Your task to perform on an android device: show emergency info Image 0: 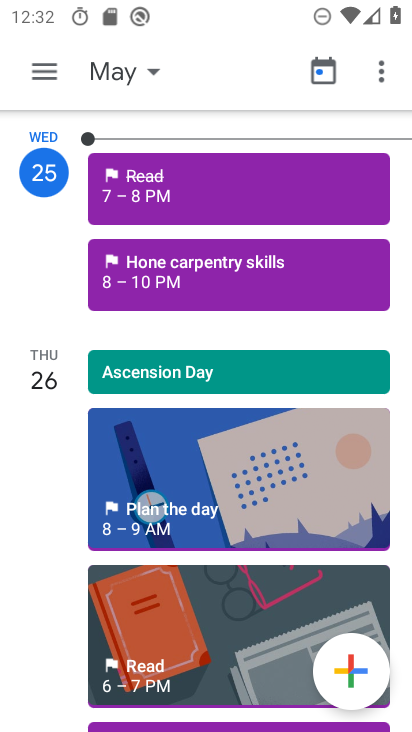
Step 0: press back button
Your task to perform on an android device: show emergency info Image 1: 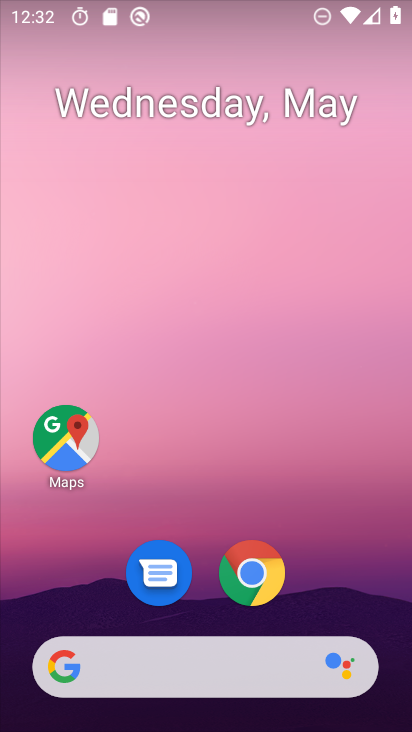
Step 1: drag from (329, 569) to (250, 22)
Your task to perform on an android device: show emergency info Image 2: 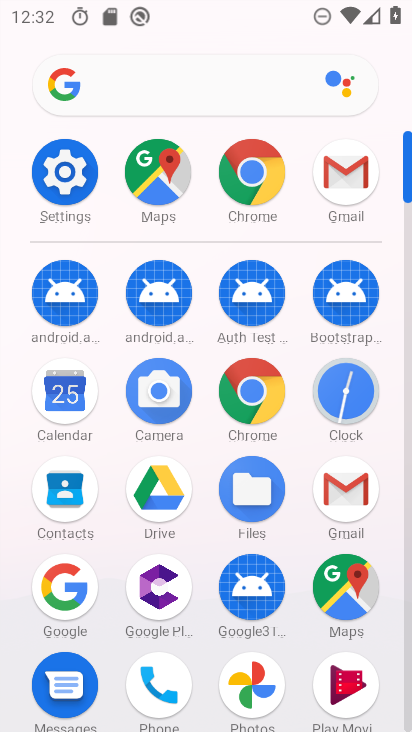
Step 2: drag from (11, 524) to (13, 210)
Your task to perform on an android device: show emergency info Image 3: 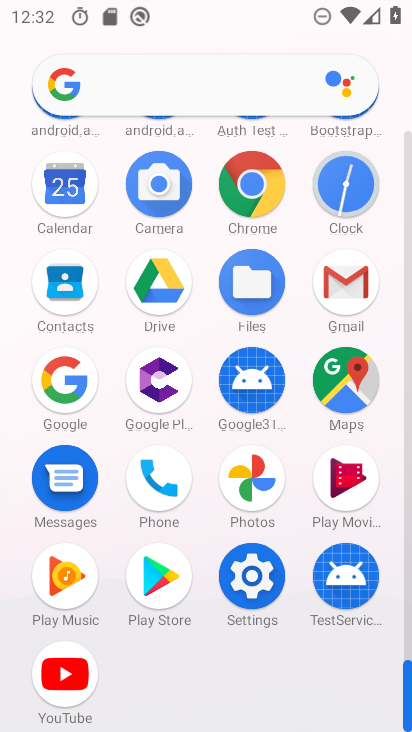
Step 3: click (252, 572)
Your task to perform on an android device: show emergency info Image 4: 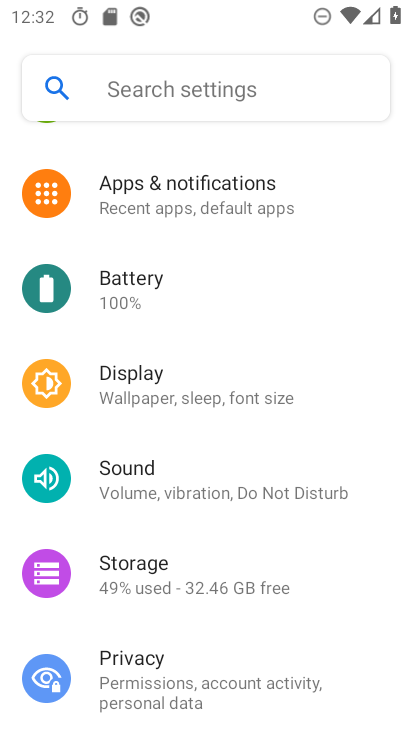
Step 4: drag from (195, 538) to (226, 155)
Your task to perform on an android device: show emergency info Image 5: 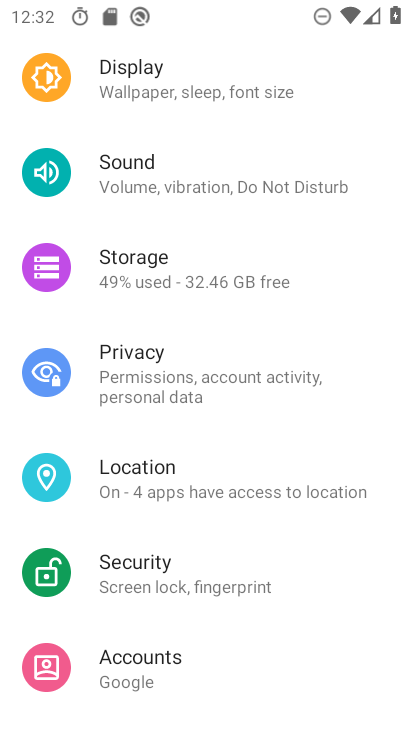
Step 5: drag from (222, 667) to (243, 200)
Your task to perform on an android device: show emergency info Image 6: 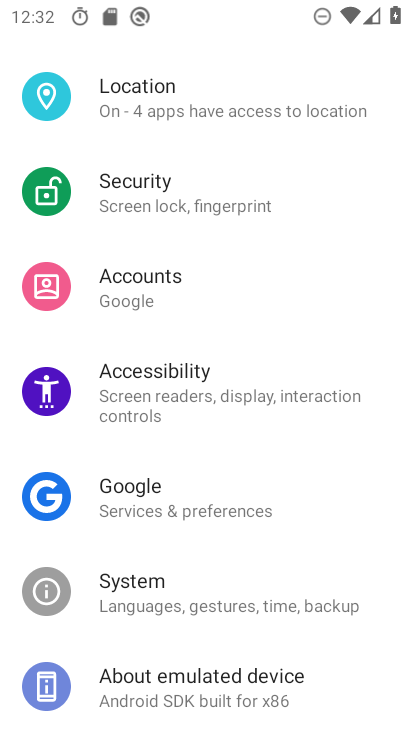
Step 6: click (213, 681)
Your task to perform on an android device: show emergency info Image 7: 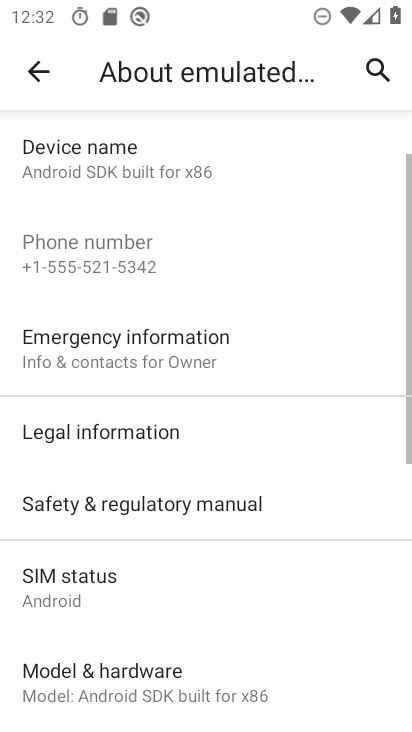
Step 7: task complete